Your task to perform on an android device: Open location settings Image 0: 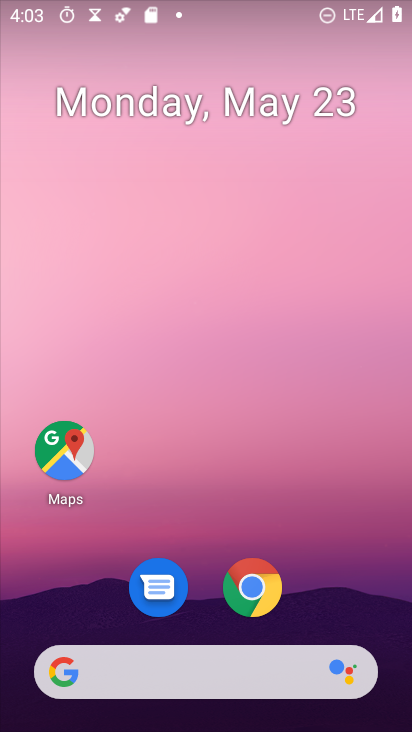
Step 0: drag from (201, 613) to (206, 11)
Your task to perform on an android device: Open location settings Image 1: 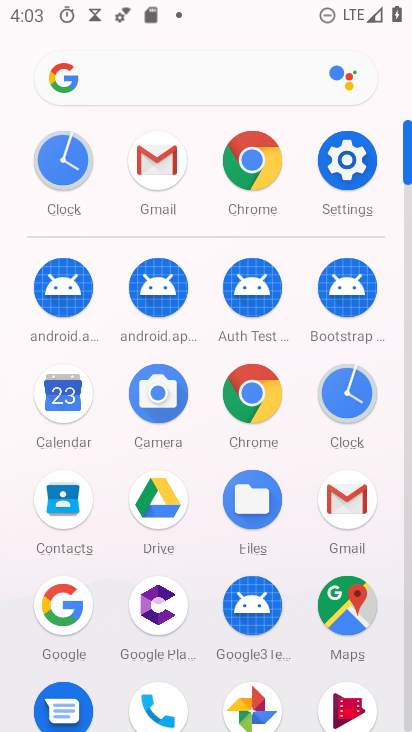
Step 1: click (352, 176)
Your task to perform on an android device: Open location settings Image 2: 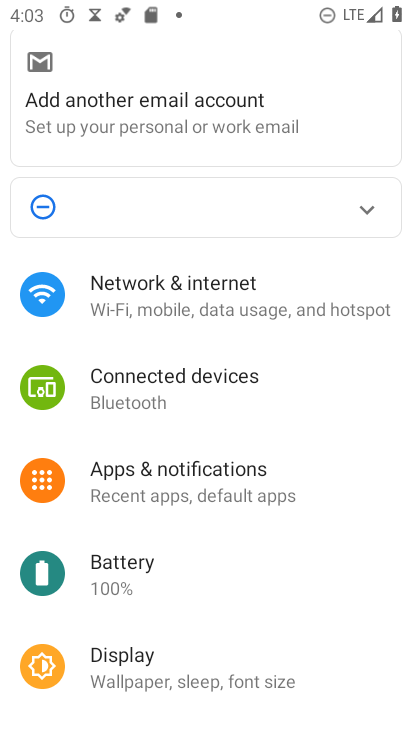
Step 2: drag from (192, 601) to (202, 333)
Your task to perform on an android device: Open location settings Image 3: 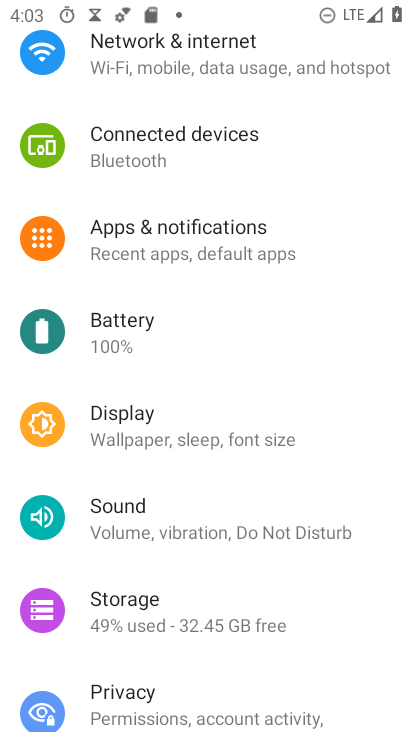
Step 3: drag from (160, 646) to (195, 248)
Your task to perform on an android device: Open location settings Image 4: 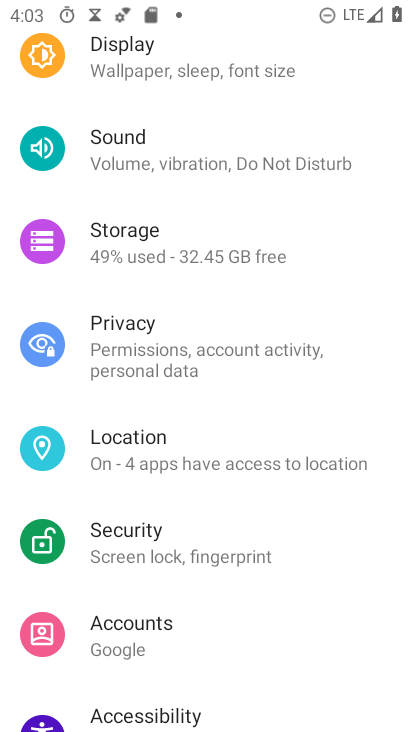
Step 4: click (159, 466)
Your task to perform on an android device: Open location settings Image 5: 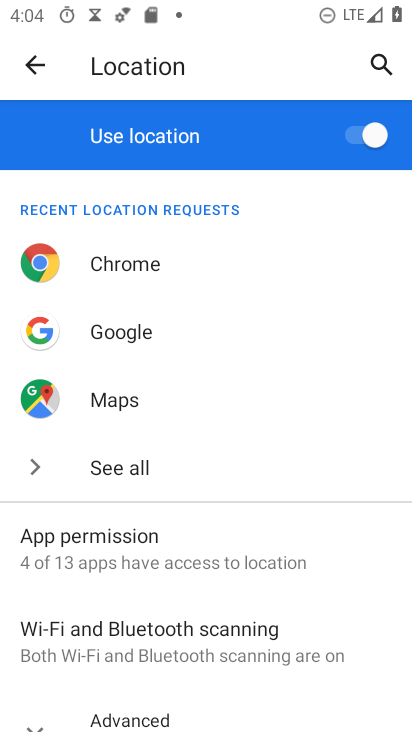
Step 5: task complete